Your task to perform on an android device: Open the web browser Image 0: 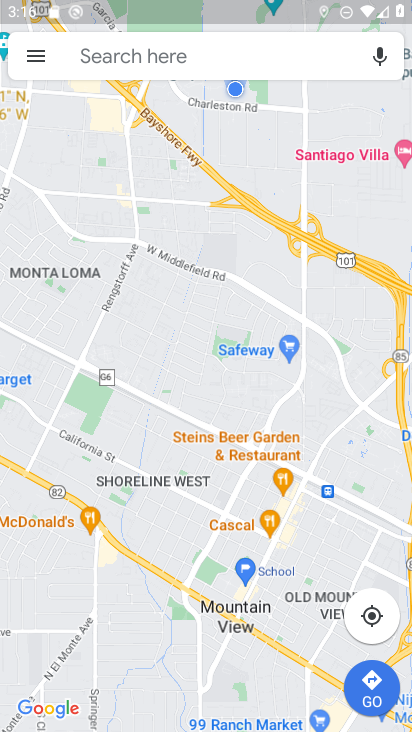
Step 0: press home button
Your task to perform on an android device: Open the web browser Image 1: 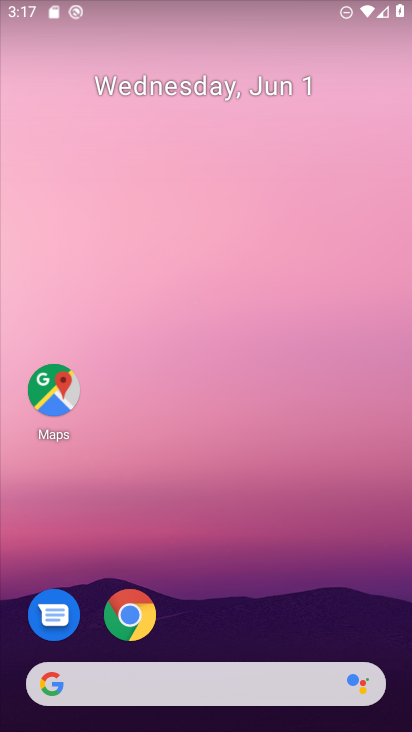
Step 1: click (137, 613)
Your task to perform on an android device: Open the web browser Image 2: 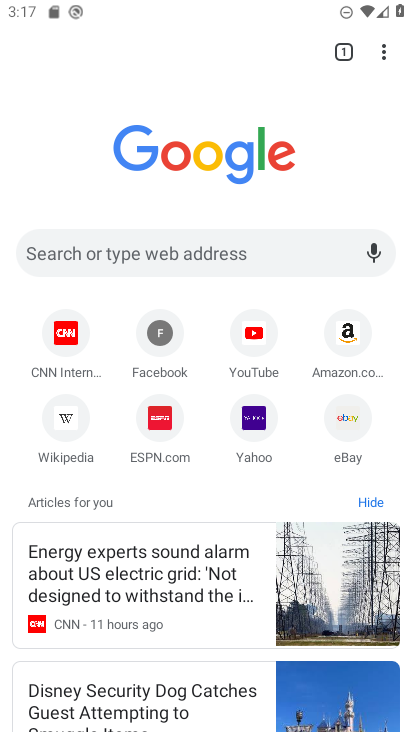
Step 2: task complete